Your task to perform on an android device: turn on showing notifications on the lock screen Image 0: 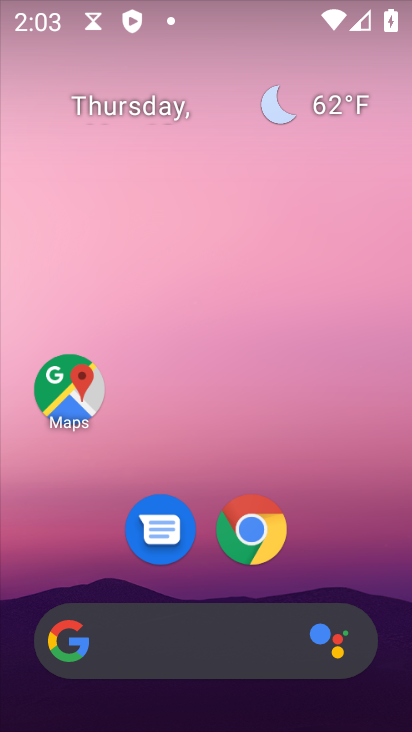
Step 0: drag from (333, 547) to (273, 26)
Your task to perform on an android device: turn on showing notifications on the lock screen Image 1: 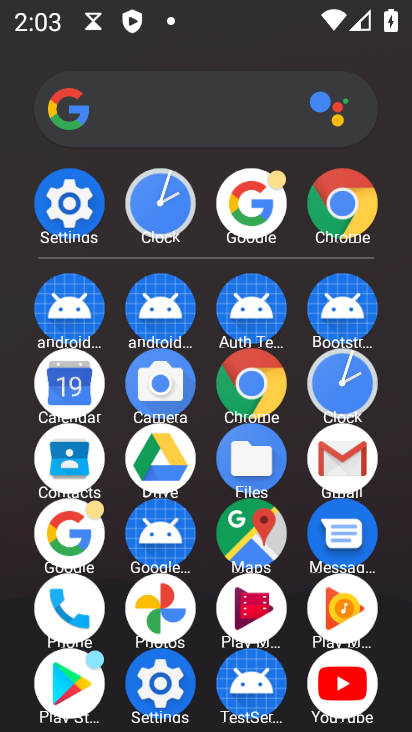
Step 1: click (69, 201)
Your task to perform on an android device: turn on showing notifications on the lock screen Image 2: 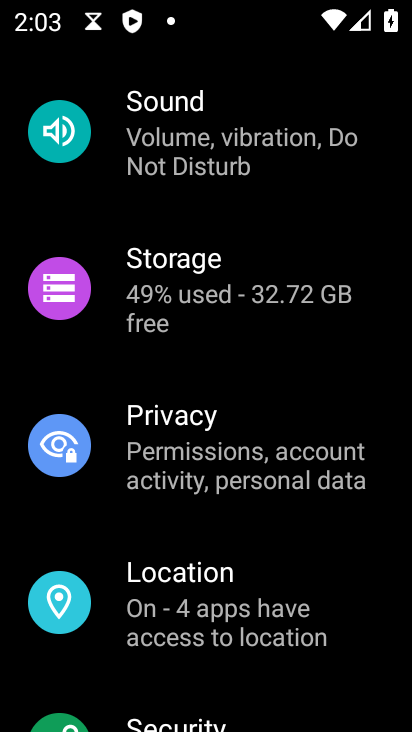
Step 2: drag from (233, 218) to (246, 329)
Your task to perform on an android device: turn on showing notifications on the lock screen Image 3: 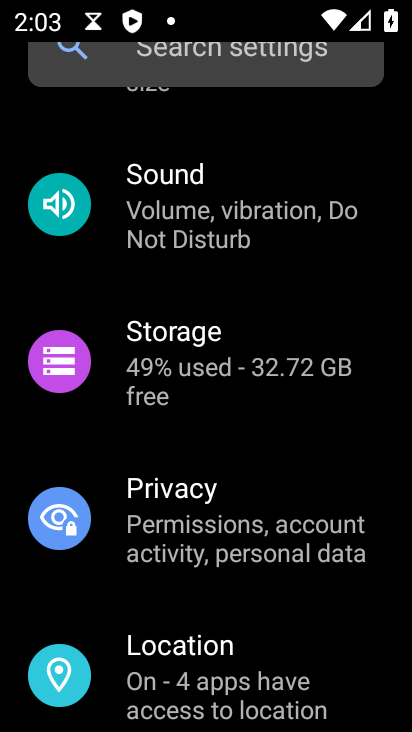
Step 3: drag from (262, 174) to (282, 315)
Your task to perform on an android device: turn on showing notifications on the lock screen Image 4: 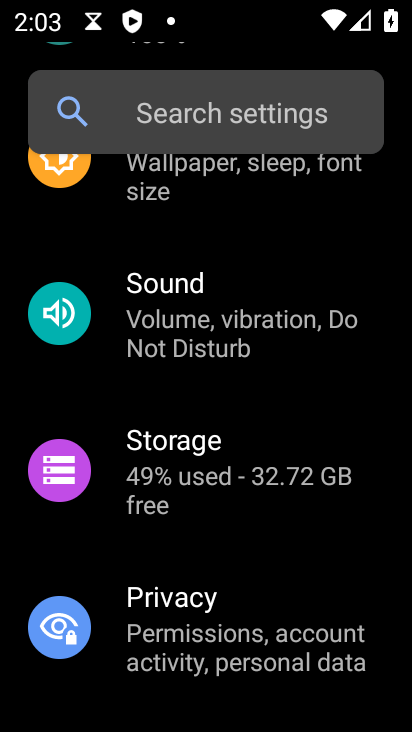
Step 4: drag from (241, 231) to (257, 405)
Your task to perform on an android device: turn on showing notifications on the lock screen Image 5: 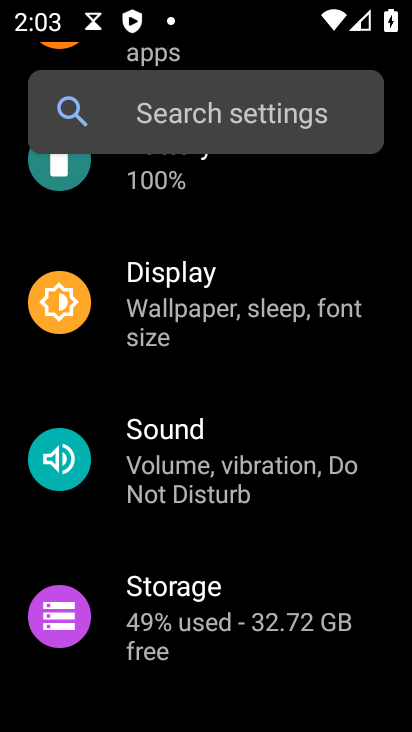
Step 5: drag from (265, 256) to (275, 411)
Your task to perform on an android device: turn on showing notifications on the lock screen Image 6: 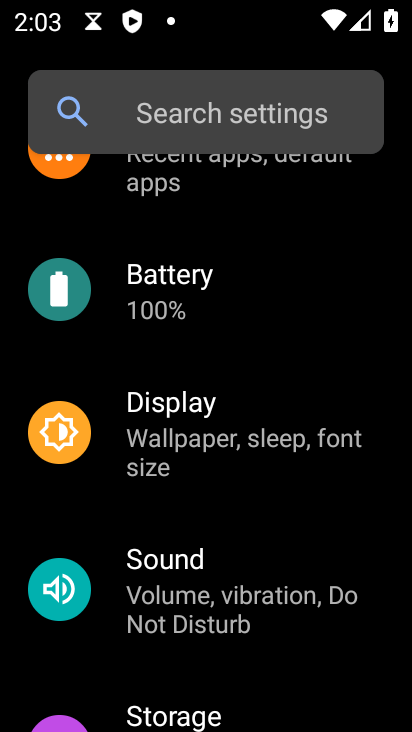
Step 6: drag from (256, 300) to (255, 424)
Your task to perform on an android device: turn on showing notifications on the lock screen Image 7: 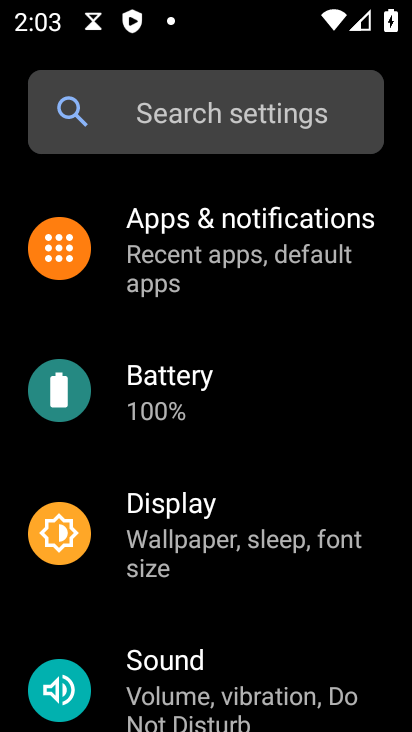
Step 7: click (227, 253)
Your task to perform on an android device: turn on showing notifications on the lock screen Image 8: 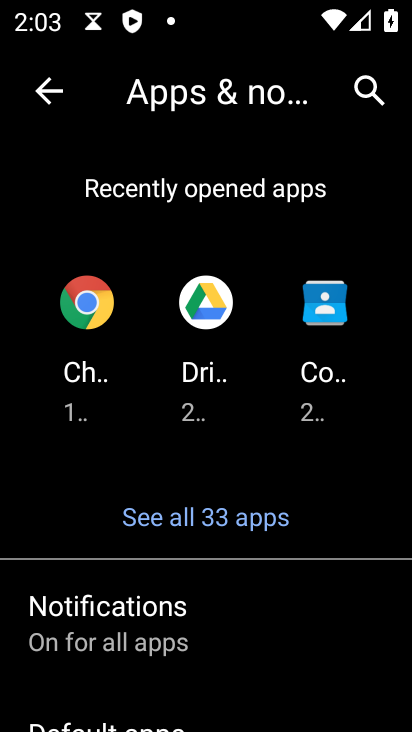
Step 8: click (125, 597)
Your task to perform on an android device: turn on showing notifications on the lock screen Image 9: 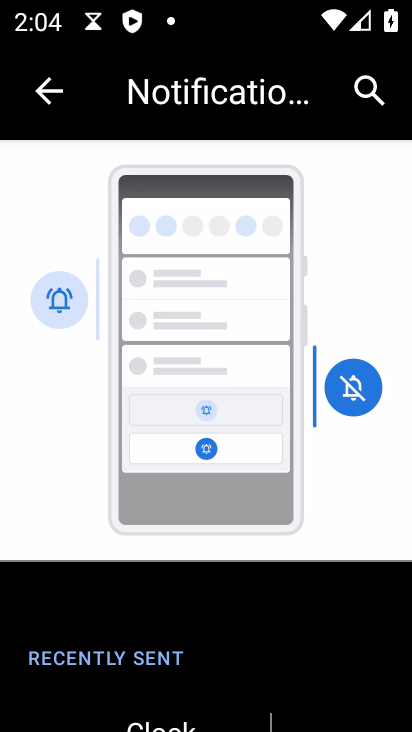
Step 9: drag from (248, 621) to (258, 440)
Your task to perform on an android device: turn on showing notifications on the lock screen Image 10: 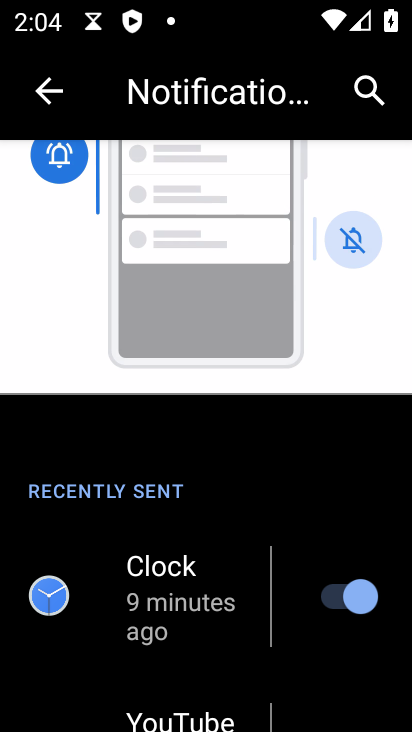
Step 10: drag from (240, 554) to (288, 355)
Your task to perform on an android device: turn on showing notifications on the lock screen Image 11: 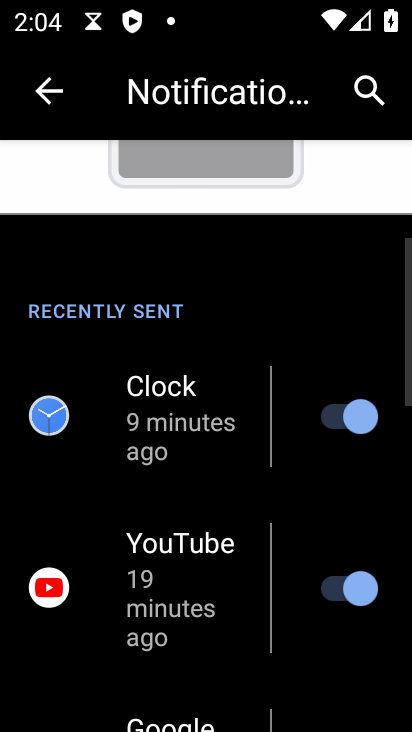
Step 11: drag from (189, 668) to (254, 346)
Your task to perform on an android device: turn on showing notifications on the lock screen Image 12: 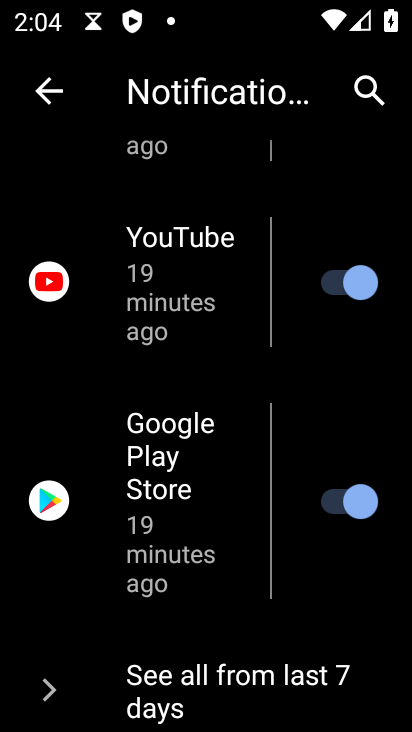
Step 12: drag from (183, 620) to (231, 348)
Your task to perform on an android device: turn on showing notifications on the lock screen Image 13: 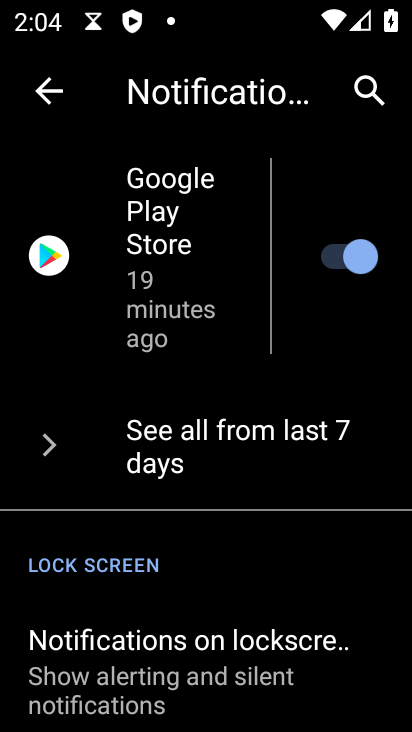
Step 13: drag from (178, 558) to (233, 377)
Your task to perform on an android device: turn on showing notifications on the lock screen Image 14: 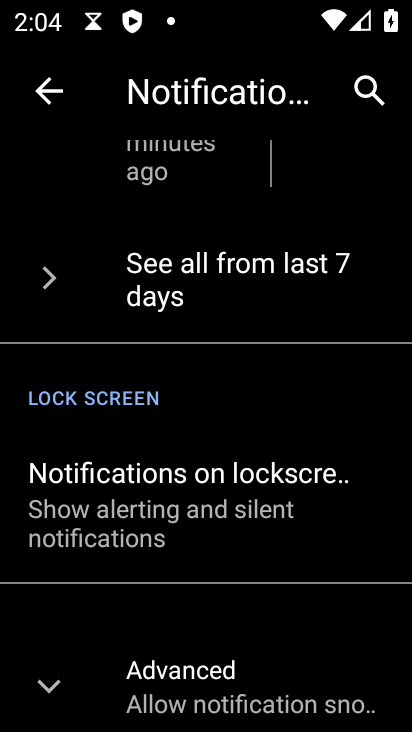
Step 14: click (136, 475)
Your task to perform on an android device: turn on showing notifications on the lock screen Image 15: 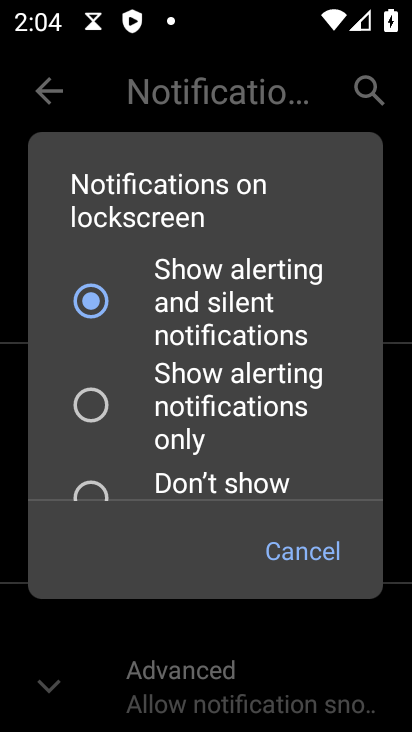
Step 15: click (83, 299)
Your task to perform on an android device: turn on showing notifications on the lock screen Image 16: 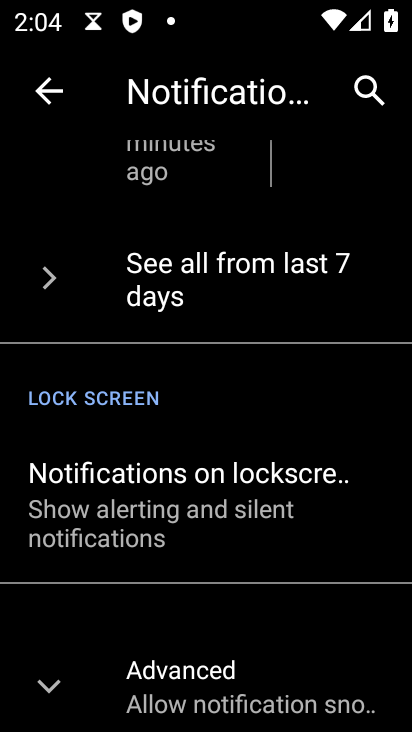
Step 16: task complete